Your task to perform on an android device: snooze an email in the gmail app Image 0: 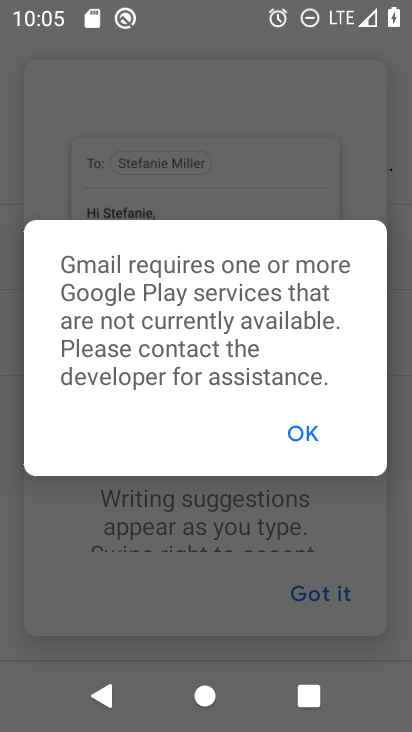
Step 0: press home button
Your task to perform on an android device: snooze an email in the gmail app Image 1: 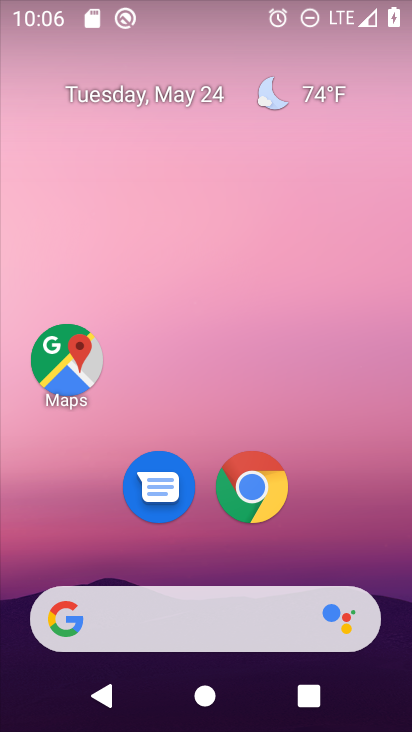
Step 1: drag from (357, 582) to (332, 13)
Your task to perform on an android device: snooze an email in the gmail app Image 2: 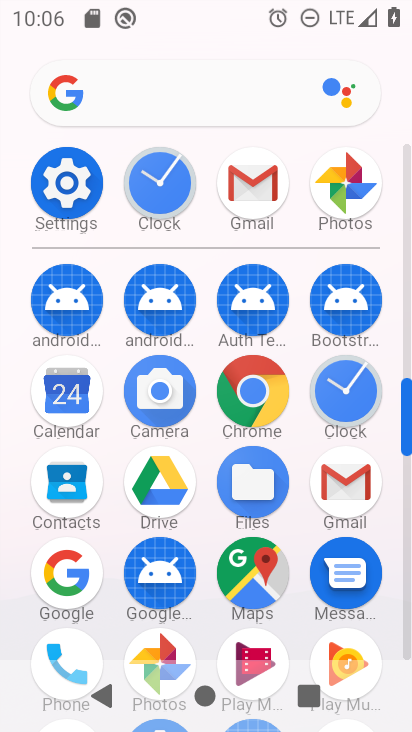
Step 2: click (249, 192)
Your task to perform on an android device: snooze an email in the gmail app Image 3: 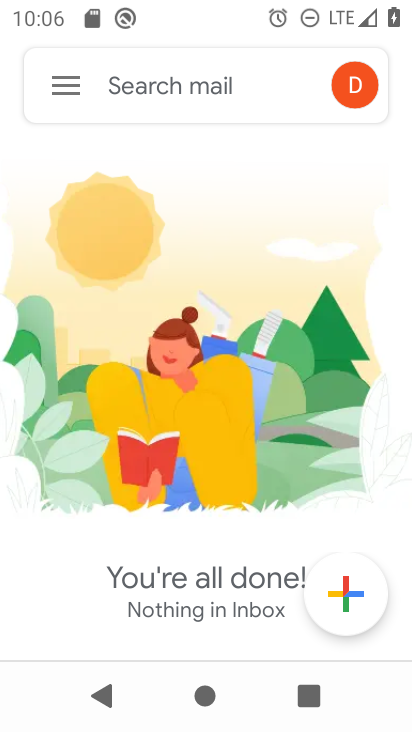
Step 3: click (59, 93)
Your task to perform on an android device: snooze an email in the gmail app Image 4: 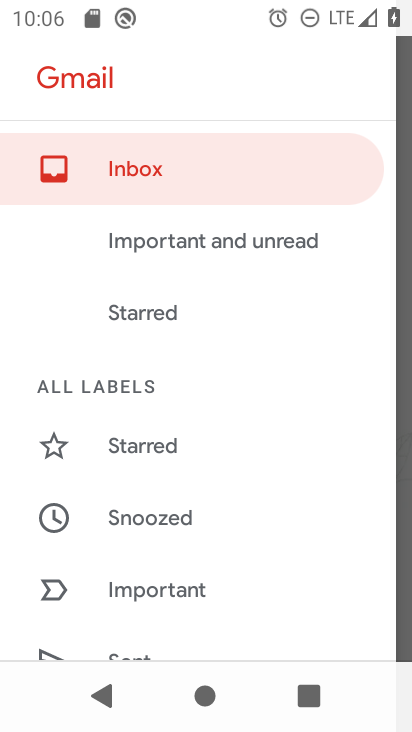
Step 4: drag from (243, 471) to (206, 38)
Your task to perform on an android device: snooze an email in the gmail app Image 5: 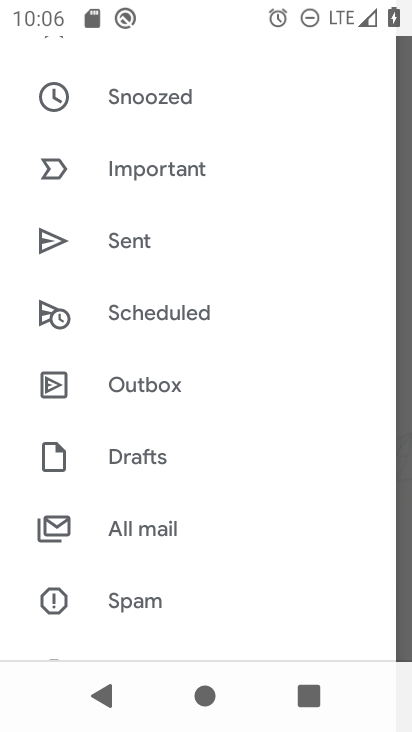
Step 5: click (161, 523)
Your task to perform on an android device: snooze an email in the gmail app Image 6: 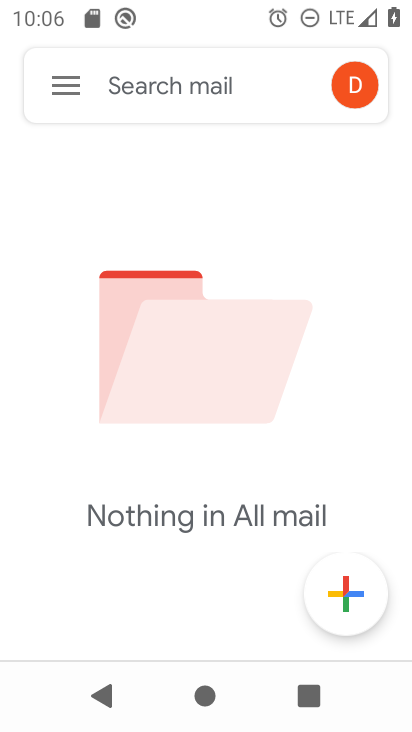
Step 6: task complete